Your task to perform on an android device: turn pop-ups off in chrome Image 0: 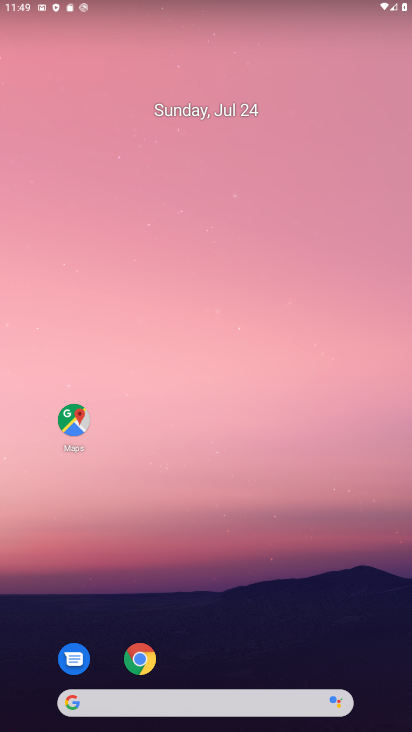
Step 0: click (133, 653)
Your task to perform on an android device: turn pop-ups off in chrome Image 1: 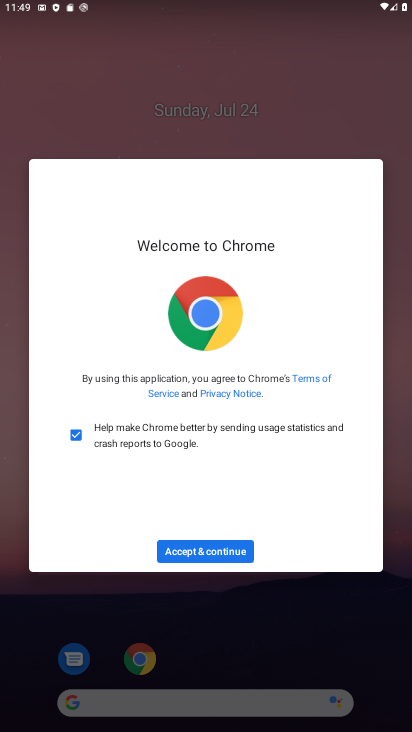
Step 1: click (204, 544)
Your task to perform on an android device: turn pop-ups off in chrome Image 2: 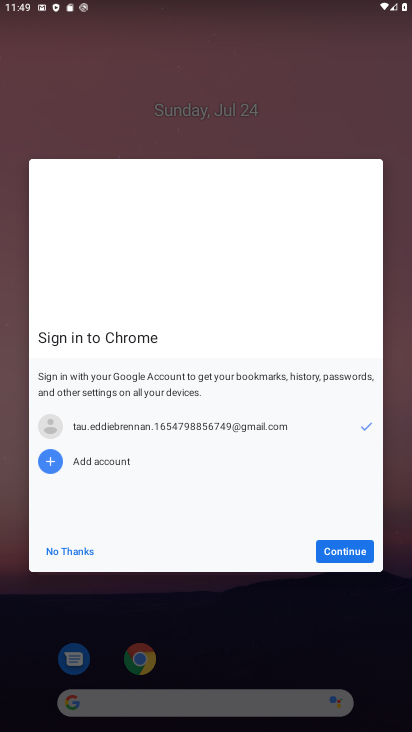
Step 2: click (338, 548)
Your task to perform on an android device: turn pop-ups off in chrome Image 3: 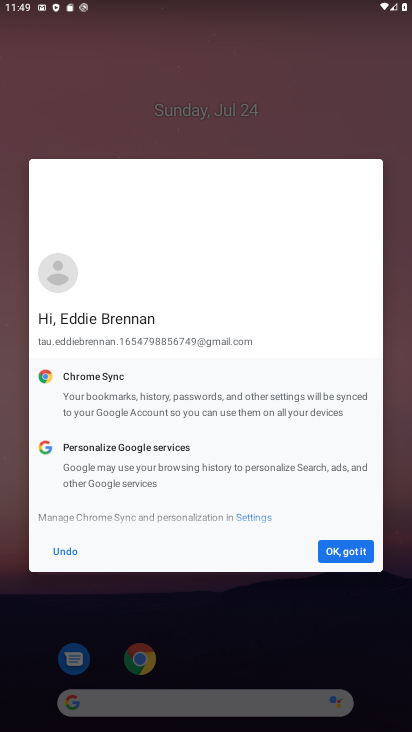
Step 3: click (341, 550)
Your task to perform on an android device: turn pop-ups off in chrome Image 4: 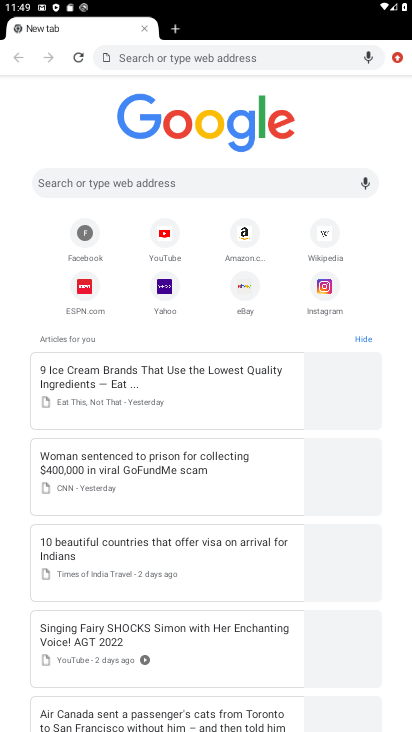
Step 4: click (395, 55)
Your task to perform on an android device: turn pop-ups off in chrome Image 5: 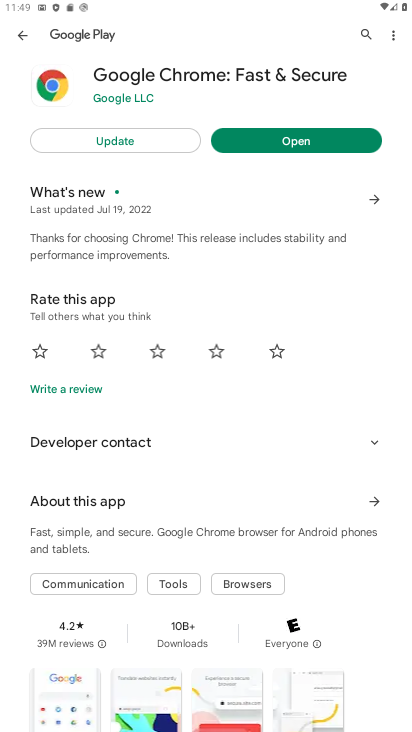
Step 5: click (15, 29)
Your task to perform on an android device: turn pop-ups off in chrome Image 6: 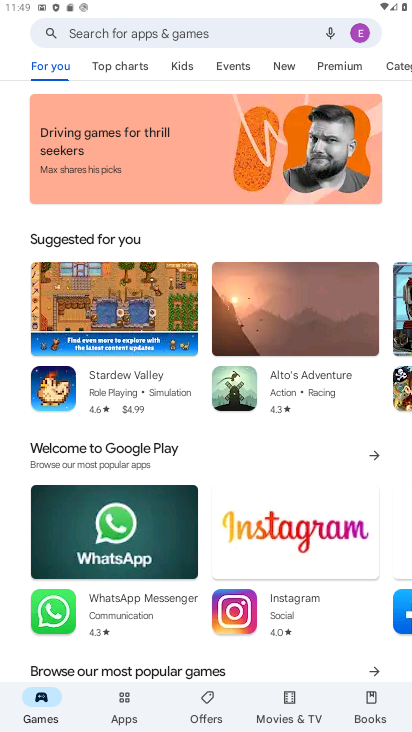
Step 6: press back button
Your task to perform on an android device: turn pop-ups off in chrome Image 7: 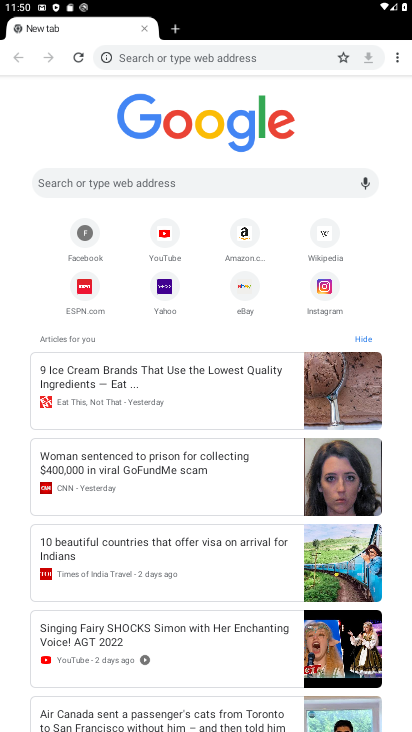
Step 7: click (392, 56)
Your task to perform on an android device: turn pop-ups off in chrome Image 8: 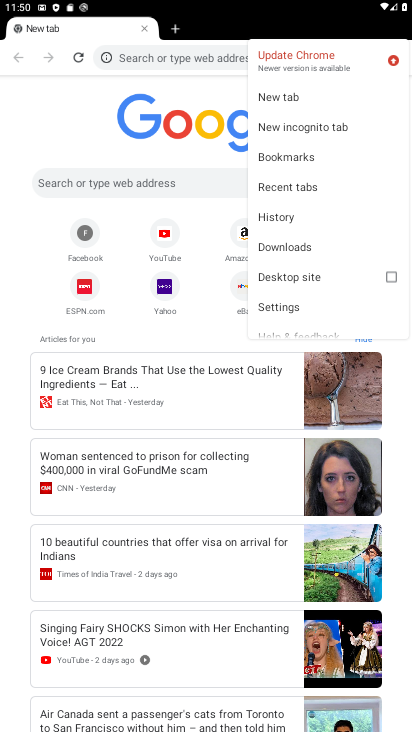
Step 8: click (293, 306)
Your task to perform on an android device: turn pop-ups off in chrome Image 9: 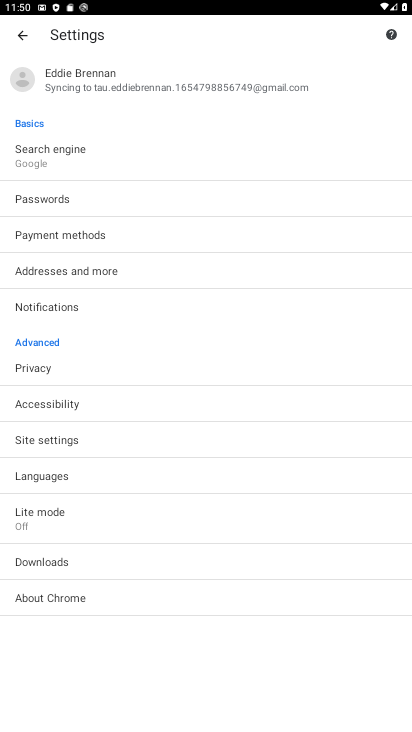
Step 9: click (87, 443)
Your task to perform on an android device: turn pop-ups off in chrome Image 10: 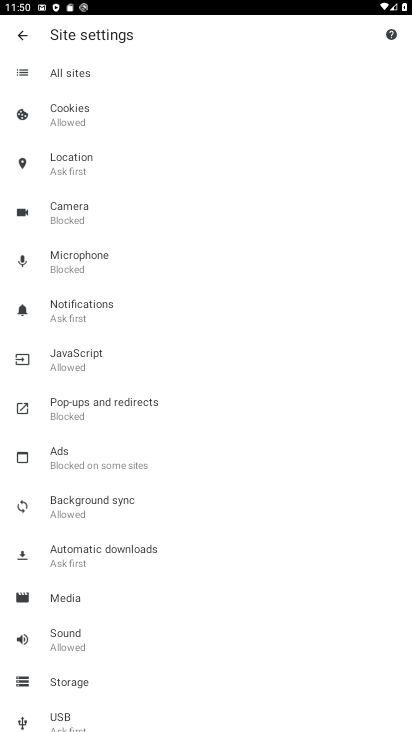
Step 10: click (102, 406)
Your task to perform on an android device: turn pop-ups off in chrome Image 11: 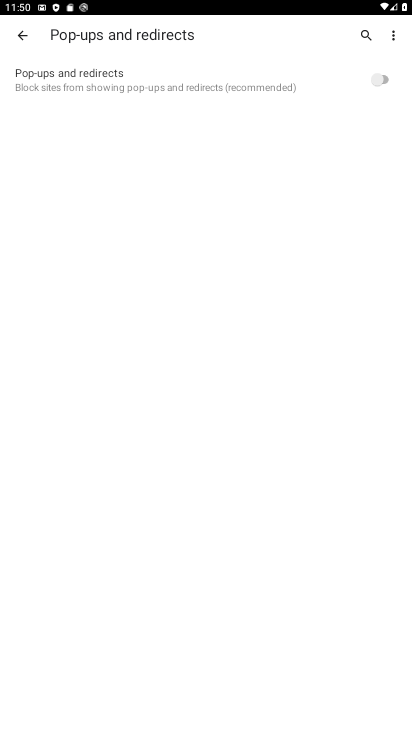
Step 11: task complete